Your task to perform on an android device: open the mobile data screen to see how much data has been used Image 0: 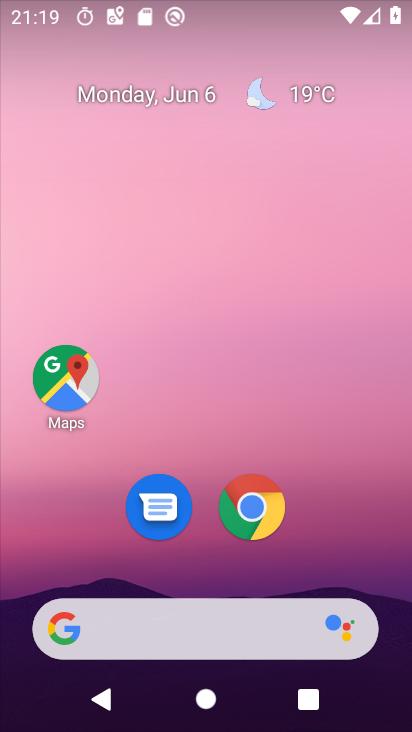
Step 0: drag from (367, 551) to (241, 9)
Your task to perform on an android device: open the mobile data screen to see how much data has been used Image 1: 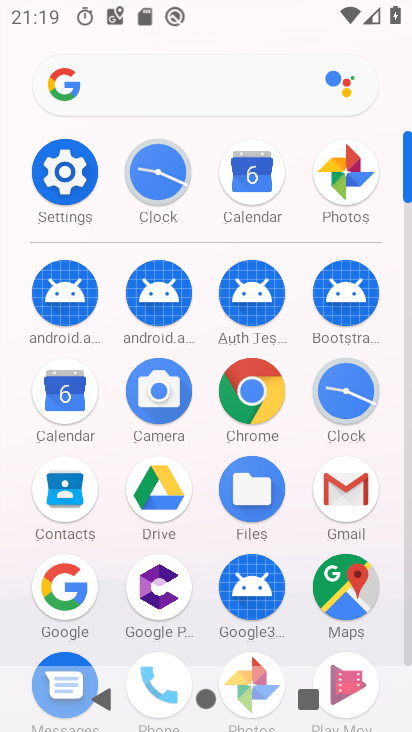
Step 1: drag from (374, 3) to (223, 426)
Your task to perform on an android device: open the mobile data screen to see how much data has been used Image 2: 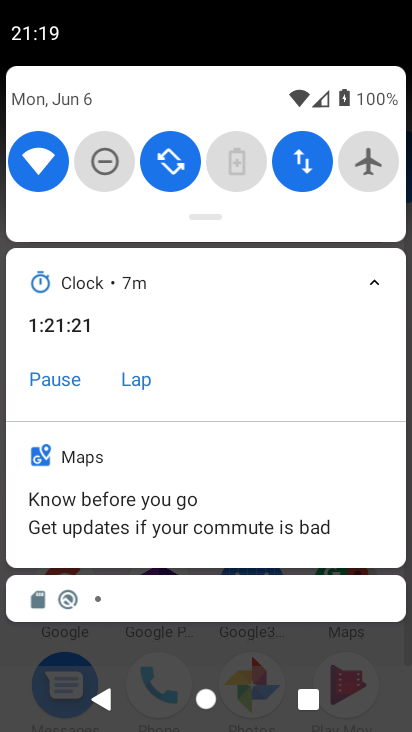
Step 2: click (284, 173)
Your task to perform on an android device: open the mobile data screen to see how much data has been used Image 3: 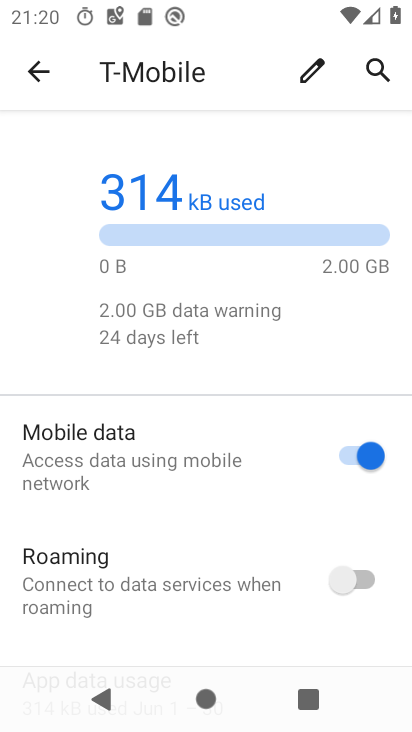
Step 3: task complete